Your task to perform on an android device: Open Youtube and go to the subscriptions tab Image 0: 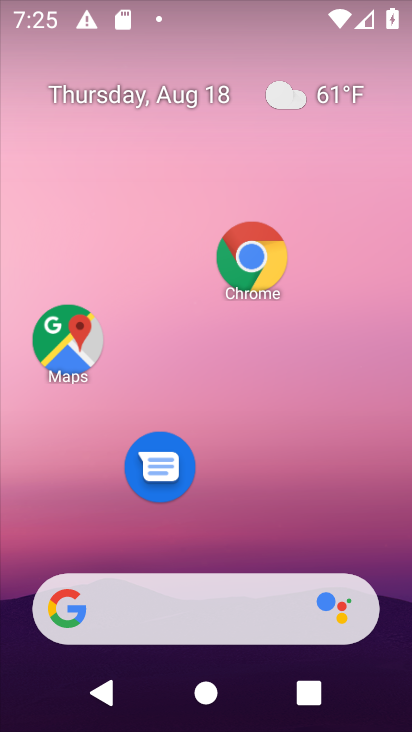
Step 0: click (265, 261)
Your task to perform on an android device: Open Youtube and go to the subscriptions tab Image 1: 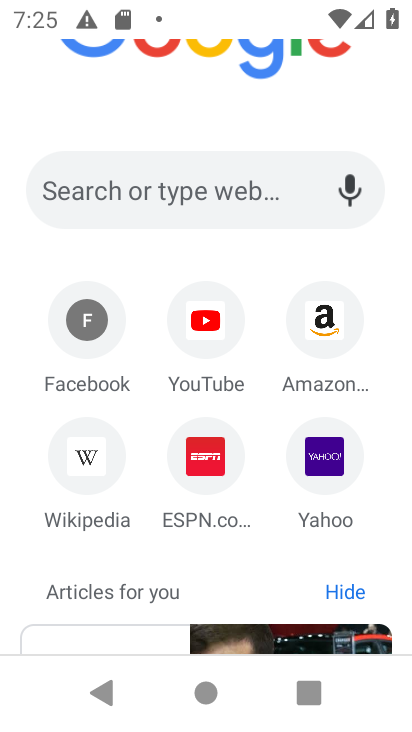
Step 1: task complete